Your task to perform on an android device: choose inbox layout in the gmail app Image 0: 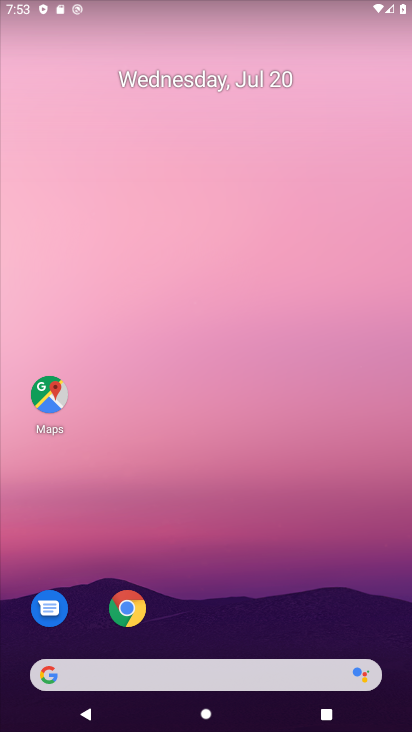
Step 0: drag from (217, 635) to (244, 99)
Your task to perform on an android device: choose inbox layout in the gmail app Image 1: 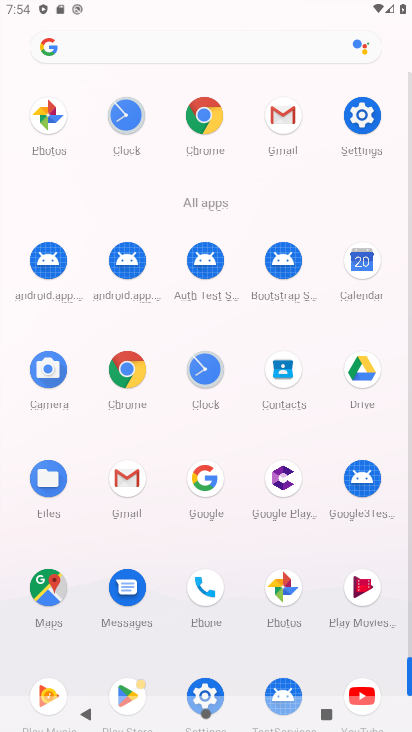
Step 1: click (123, 492)
Your task to perform on an android device: choose inbox layout in the gmail app Image 2: 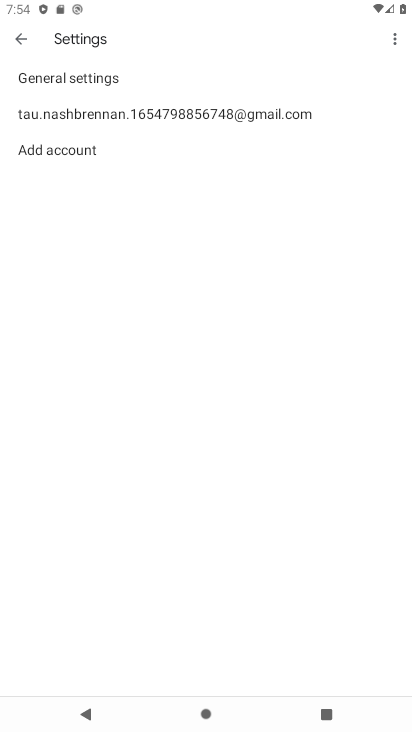
Step 2: click (123, 118)
Your task to perform on an android device: choose inbox layout in the gmail app Image 3: 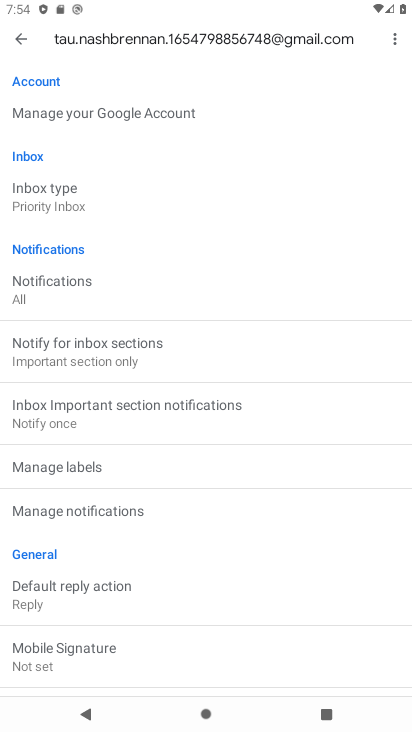
Step 3: click (39, 200)
Your task to perform on an android device: choose inbox layout in the gmail app Image 4: 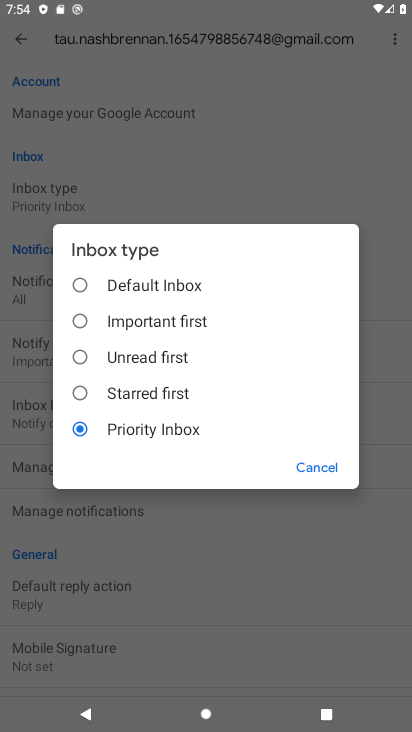
Step 4: click (100, 285)
Your task to perform on an android device: choose inbox layout in the gmail app Image 5: 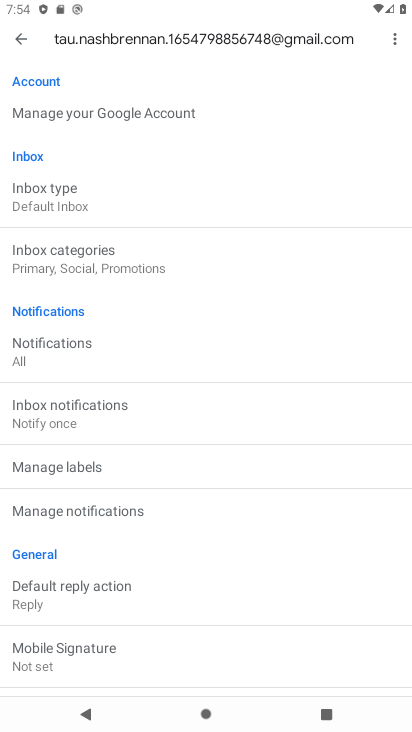
Step 5: task complete